Your task to perform on an android device: open the mobile data screen to see how much data has been used Image 0: 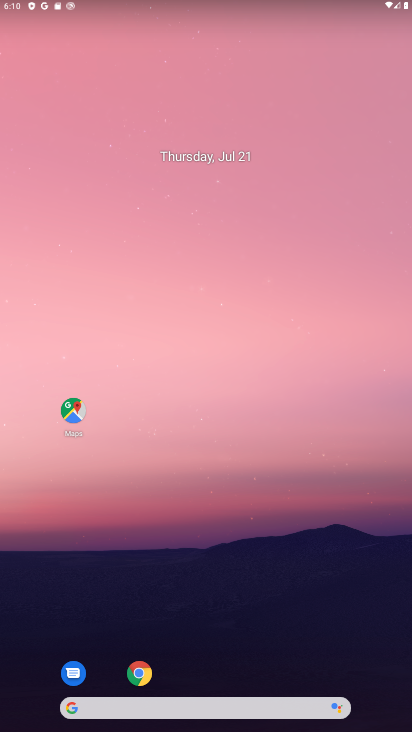
Step 0: drag from (178, 662) to (276, 106)
Your task to perform on an android device: open the mobile data screen to see how much data has been used Image 1: 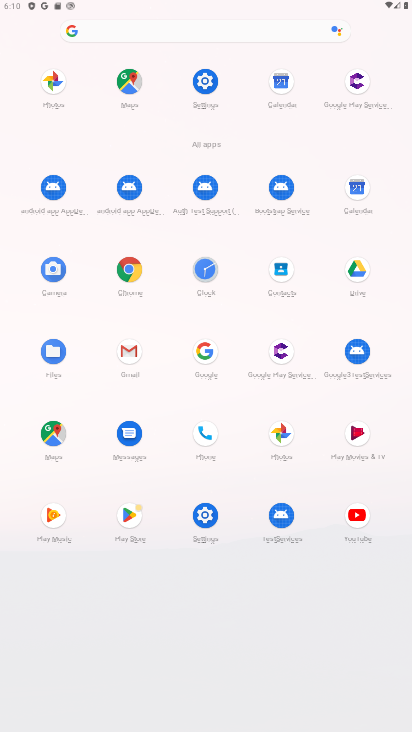
Step 1: click (202, 77)
Your task to perform on an android device: open the mobile data screen to see how much data has been used Image 2: 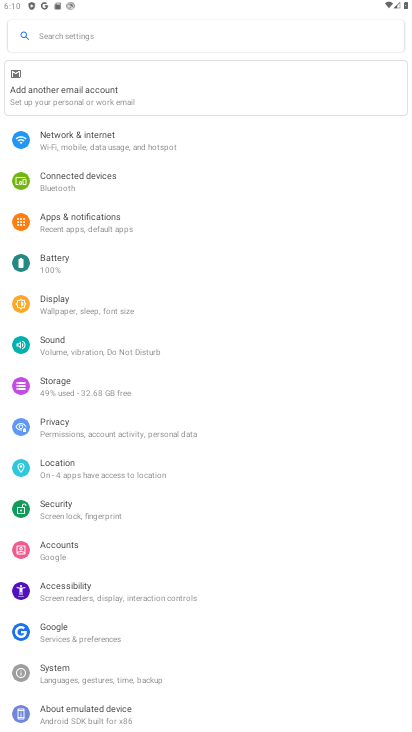
Step 2: click (103, 137)
Your task to perform on an android device: open the mobile data screen to see how much data has been used Image 3: 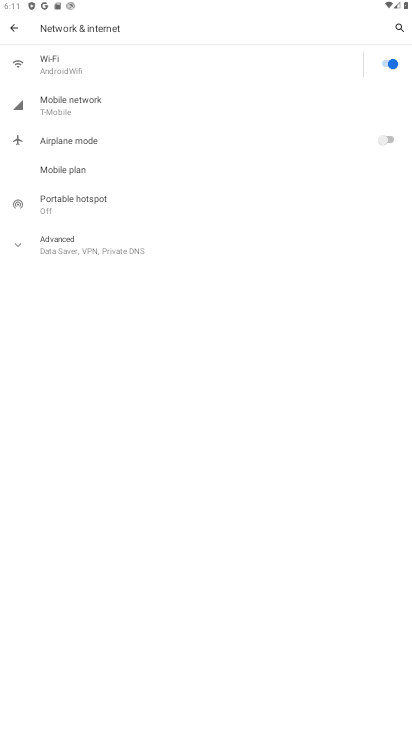
Step 3: click (85, 110)
Your task to perform on an android device: open the mobile data screen to see how much data has been used Image 4: 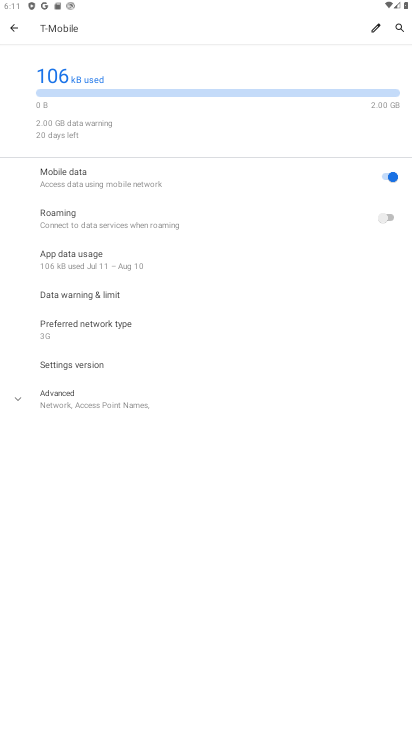
Step 4: task complete